Your task to perform on an android device: uninstall "Messages" Image 0: 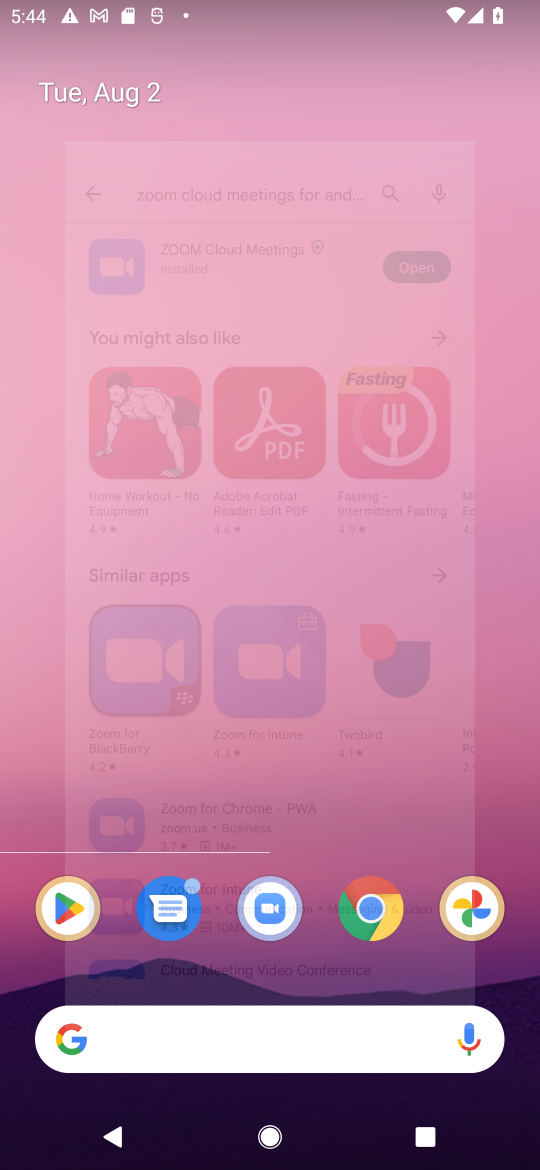
Step 0: press home button
Your task to perform on an android device: uninstall "Messages" Image 1: 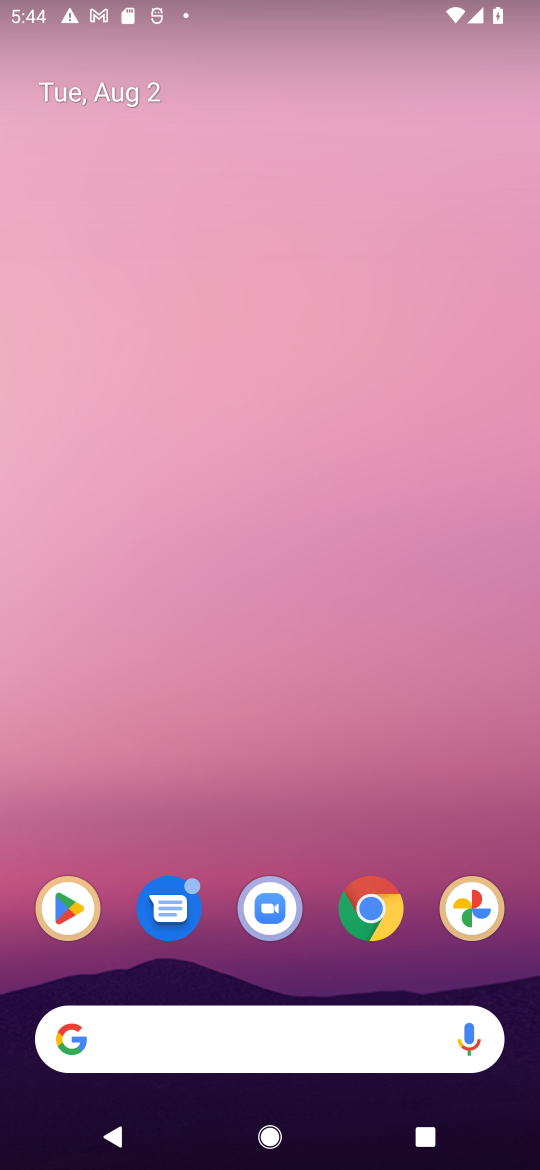
Step 1: click (61, 896)
Your task to perform on an android device: uninstall "Messages" Image 2: 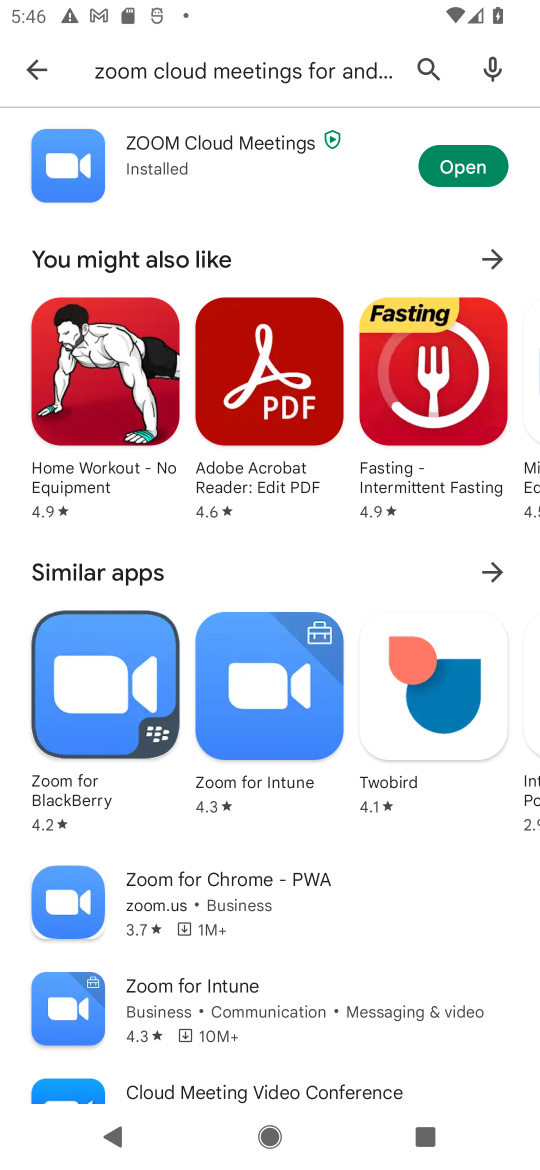
Step 2: click (423, 59)
Your task to perform on an android device: uninstall "Messages" Image 3: 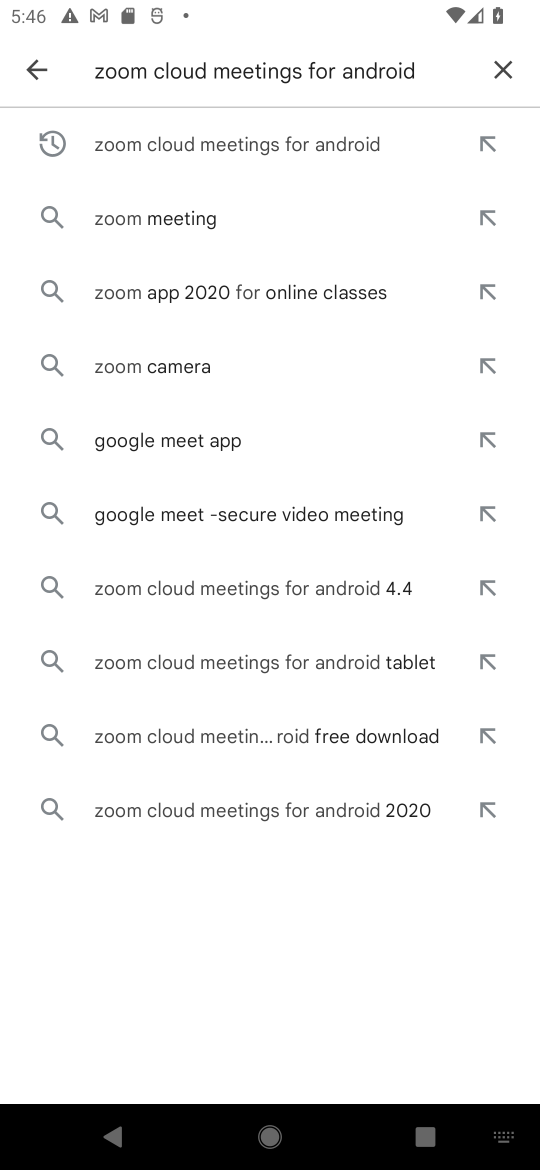
Step 3: click (493, 71)
Your task to perform on an android device: uninstall "Messages" Image 4: 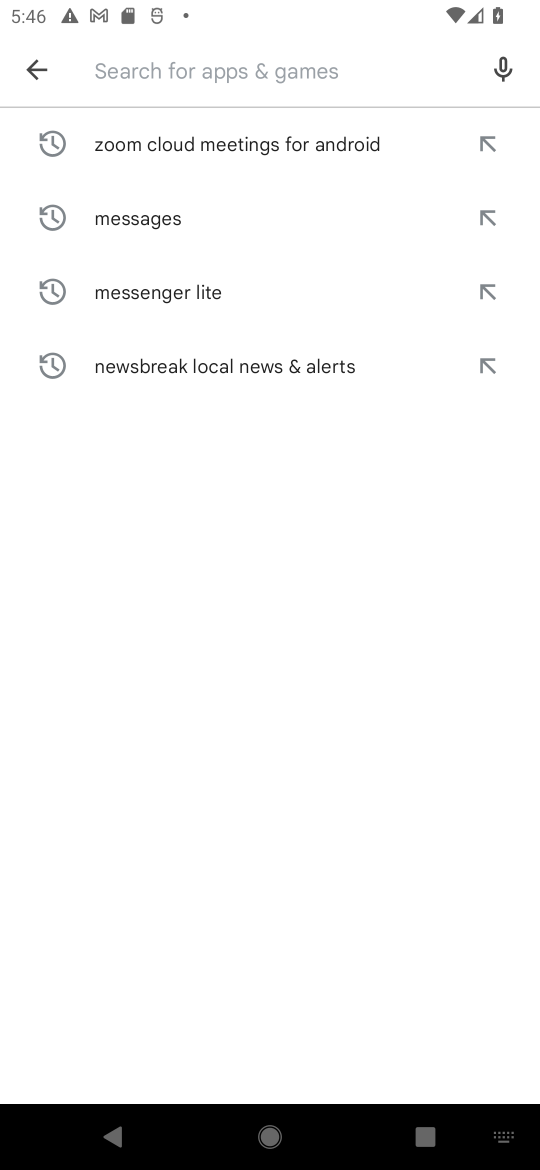
Step 4: type "Messages"
Your task to perform on an android device: uninstall "Messages" Image 5: 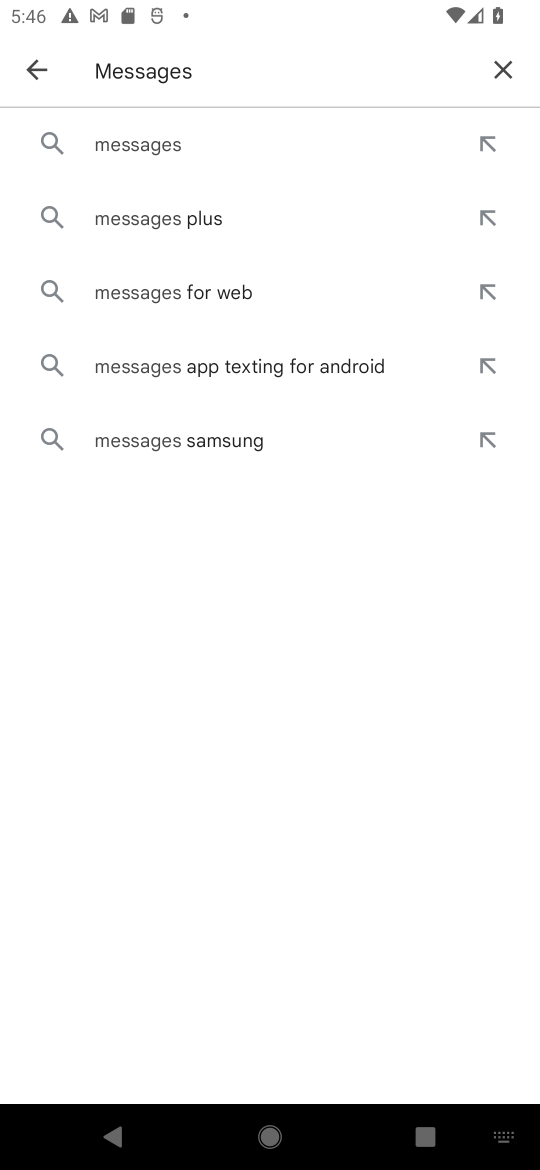
Step 5: click (223, 147)
Your task to perform on an android device: uninstall "Messages" Image 6: 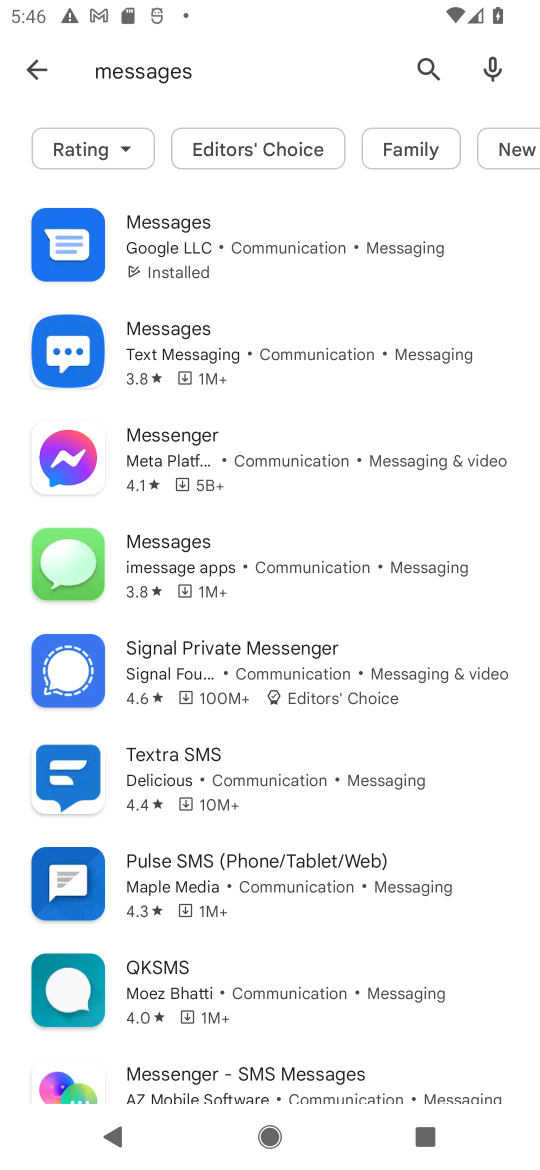
Step 6: click (205, 243)
Your task to perform on an android device: uninstall "Messages" Image 7: 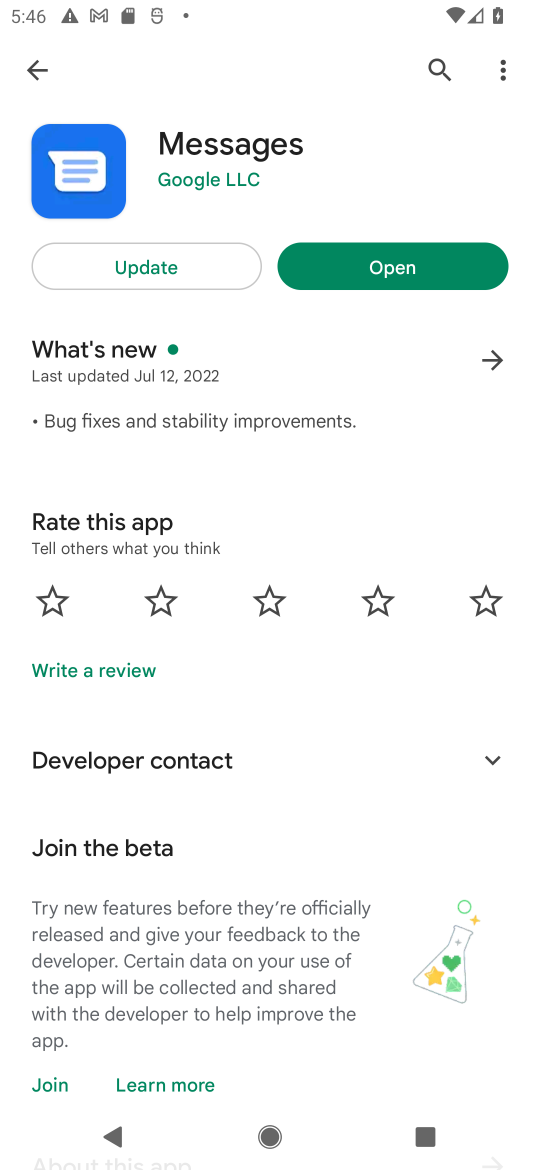
Step 7: click (135, 276)
Your task to perform on an android device: uninstall "Messages" Image 8: 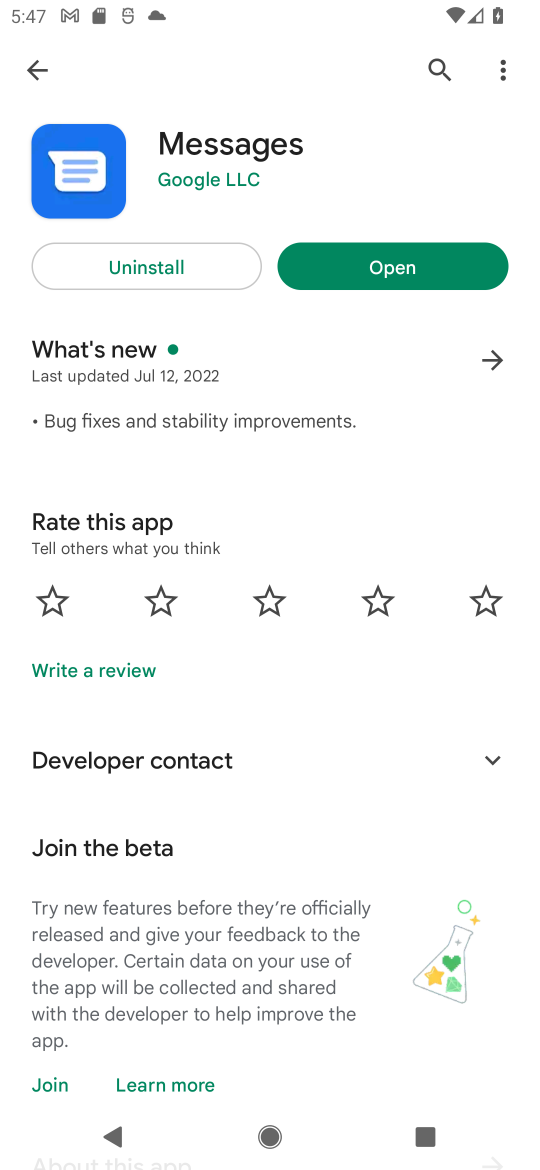
Step 8: click (145, 267)
Your task to perform on an android device: uninstall "Messages" Image 9: 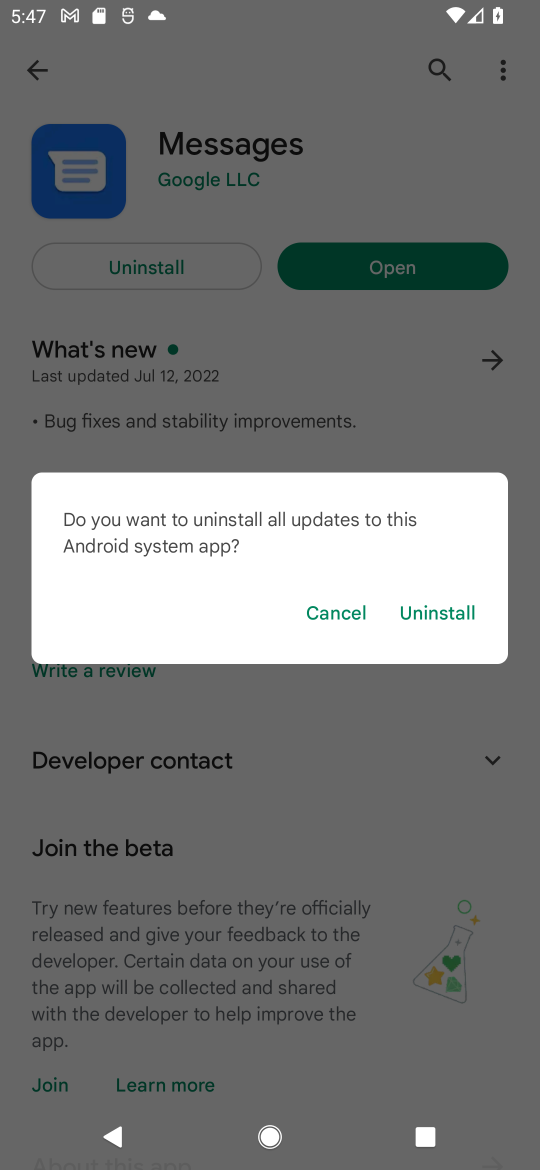
Step 9: click (461, 611)
Your task to perform on an android device: uninstall "Messages" Image 10: 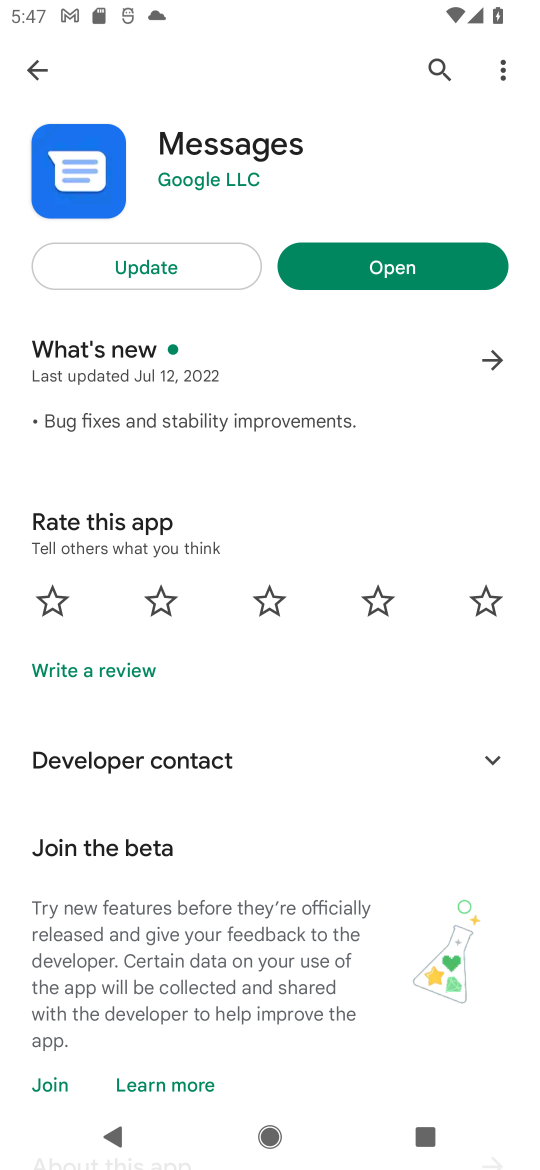
Step 10: task complete